Your task to perform on an android device: uninstall "Pandora - Music & Podcasts" Image 0: 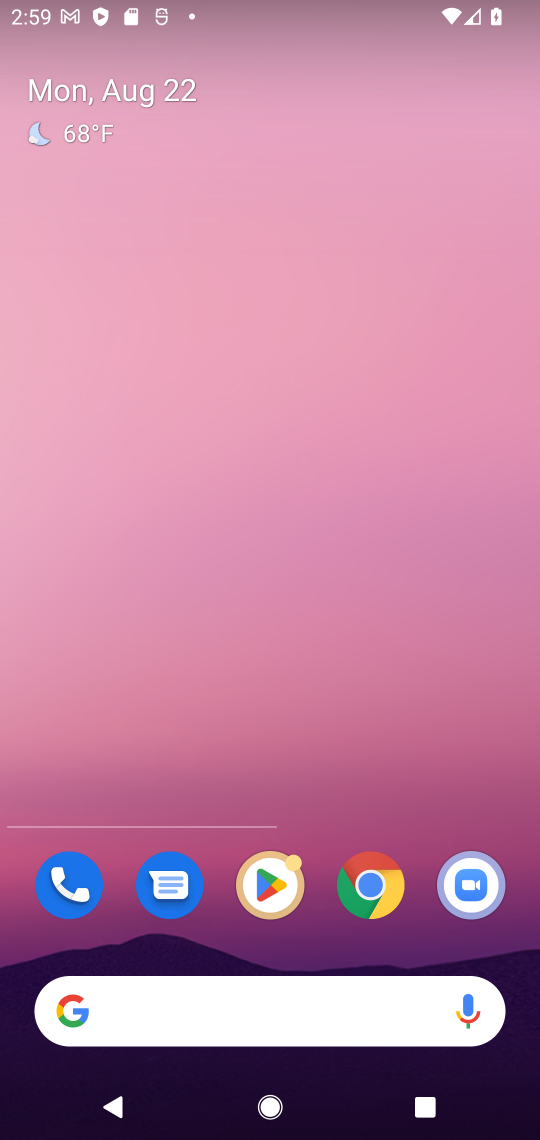
Step 0: press home button
Your task to perform on an android device: uninstall "Pandora - Music & Podcasts" Image 1: 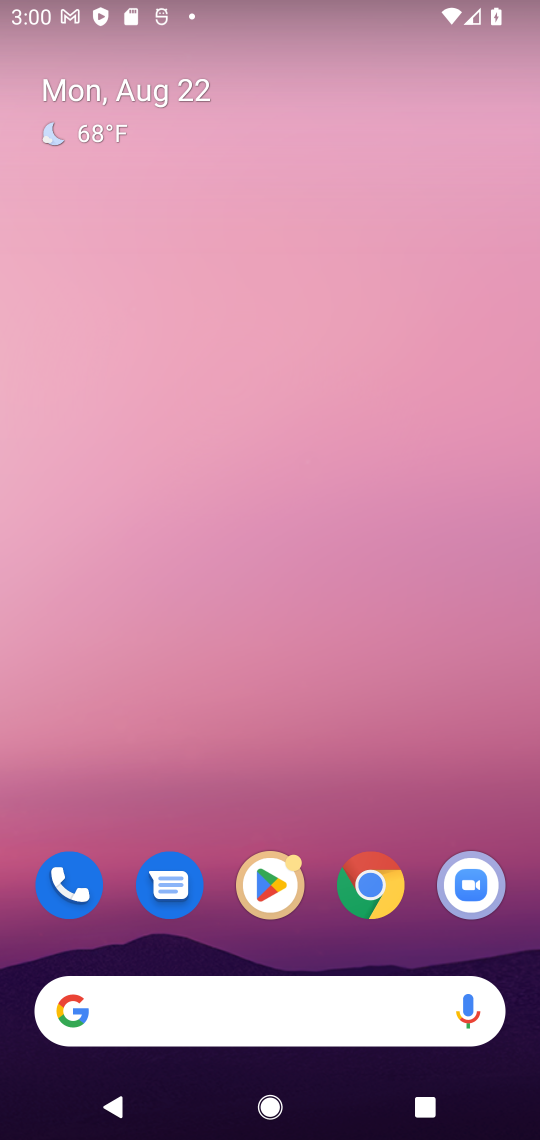
Step 1: click (262, 872)
Your task to perform on an android device: uninstall "Pandora - Music & Podcasts" Image 2: 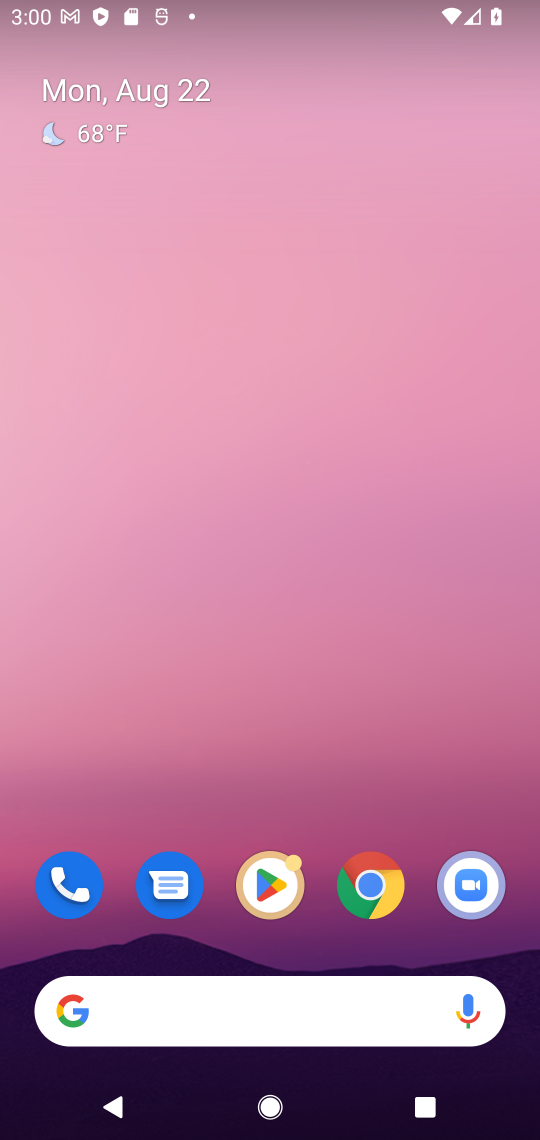
Step 2: click (251, 887)
Your task to perform on an android device: uninstall "Pandora - Music & Podcasts" Image 3: 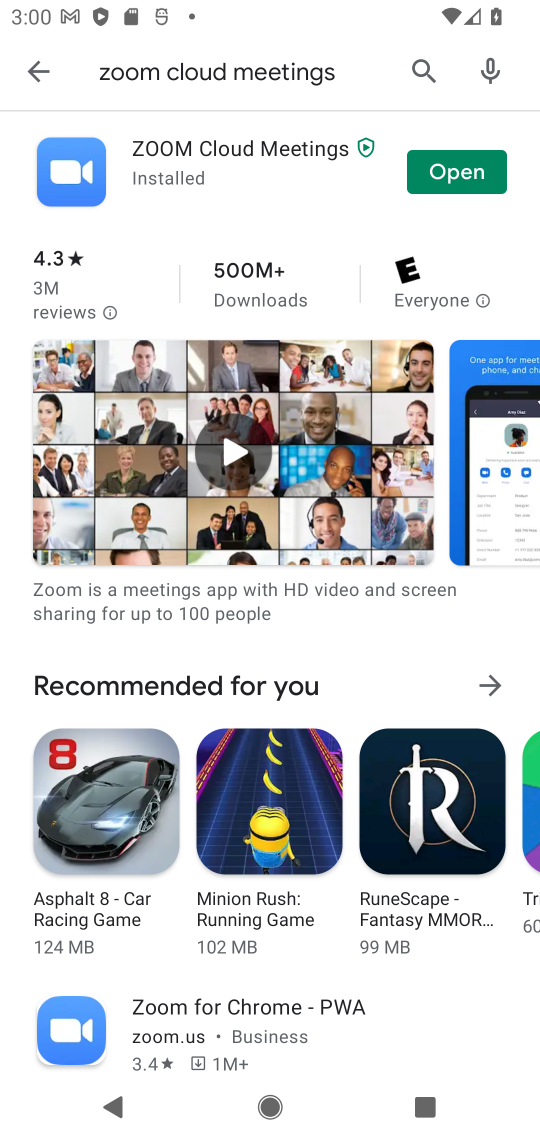
Step 3: click (412, 65)
Your task to perform on an android device: uninstall "Pandora - Music & Podcasts" Image 4: 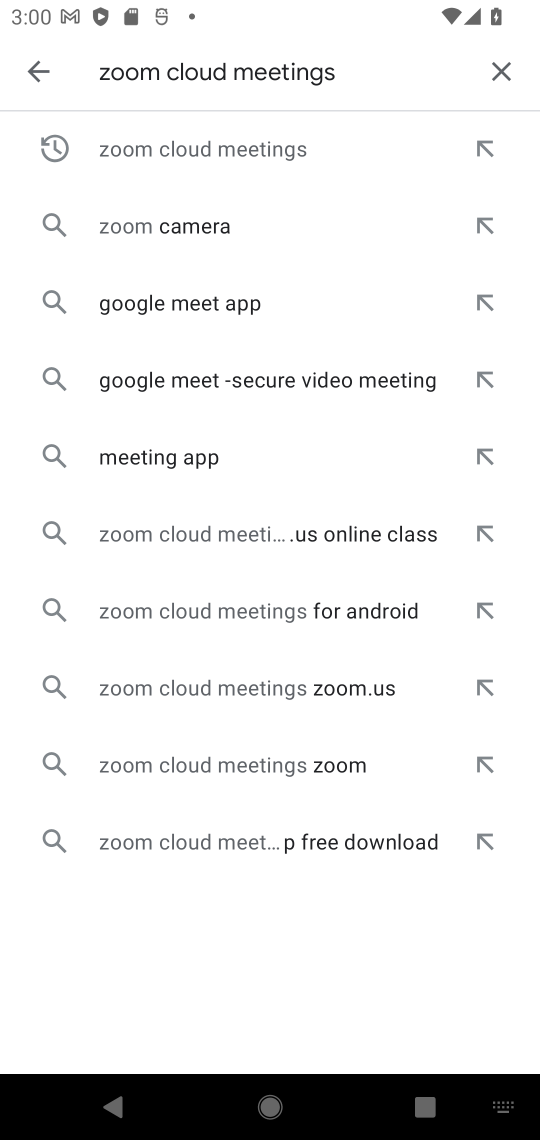
Step 4: click (504, 62)
Your task to perform on an android device: uninstall "Pandora - Music & Podcasts" Image 5: 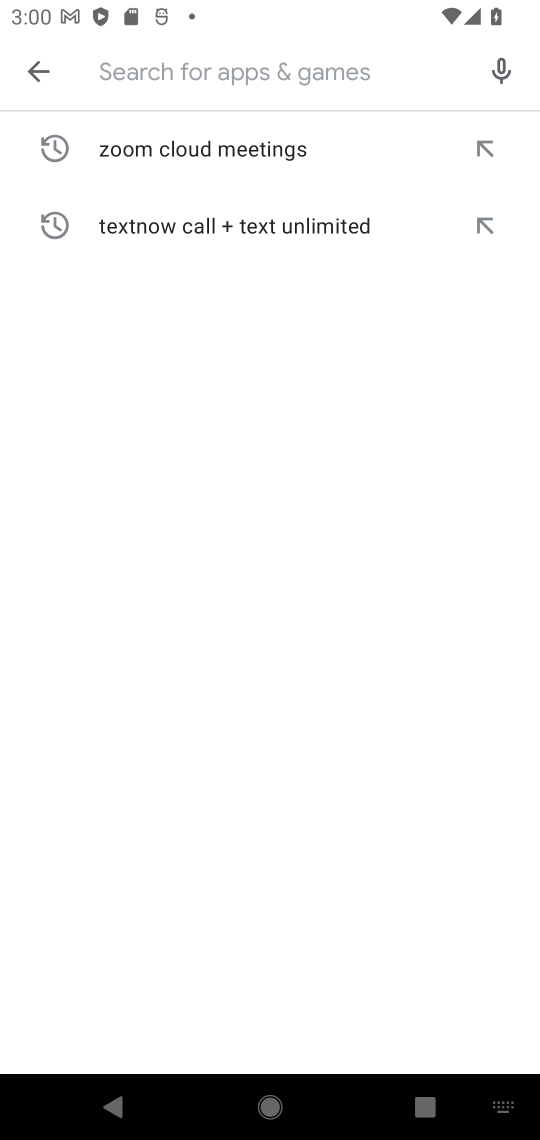
Step 5: type "Pandora - Music & Podcasts"
Your task to perform on an android device: uninstall "Pandora - Music & Podcasts" Image 6: 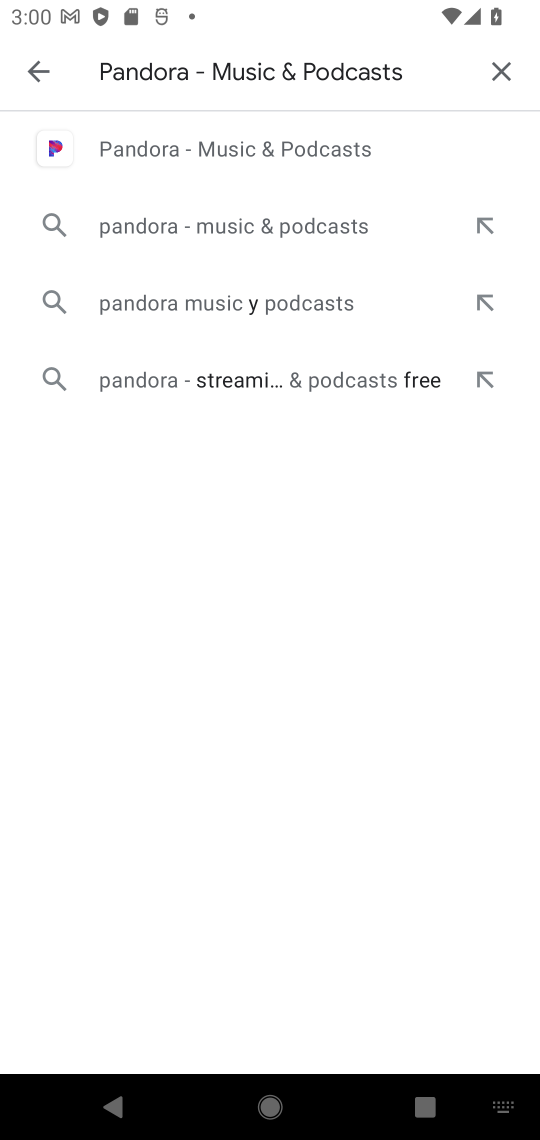
Step 6: click (158, 136)
Your task to perform on an android device: uninstall "Pandora - Music & Podcasts" Image 7: 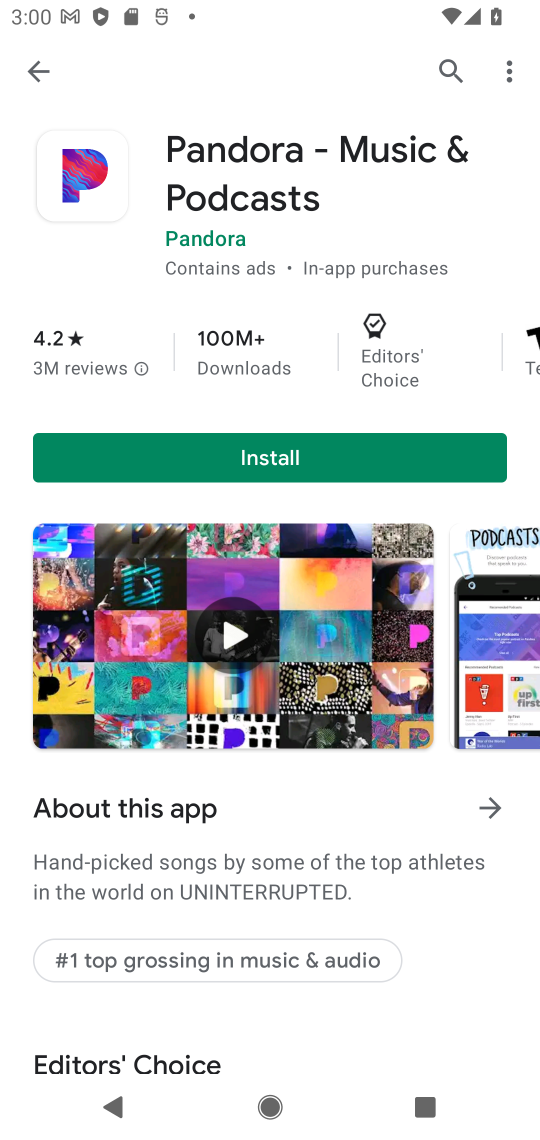
Step 7: task complete